Your task to perform on an android device: turn off improve location accuracy Image 0: 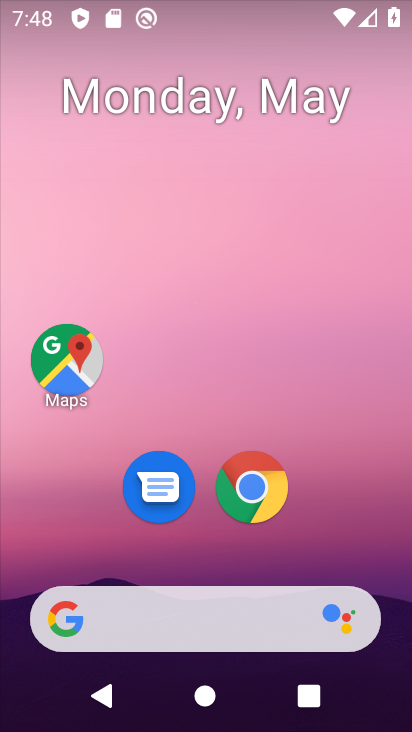
Step 0: drag from (296, 525) to (266, 256)
Your task to perform on an android device: turn off improve location accuracy Image 1: 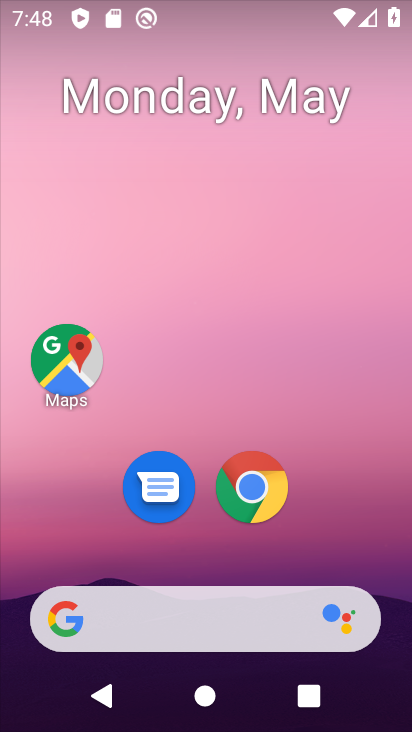
Step 1: drag from (338, 551) to (301, 90)
Your task to perform on an android device: turn off improve location accuracy Image 2: 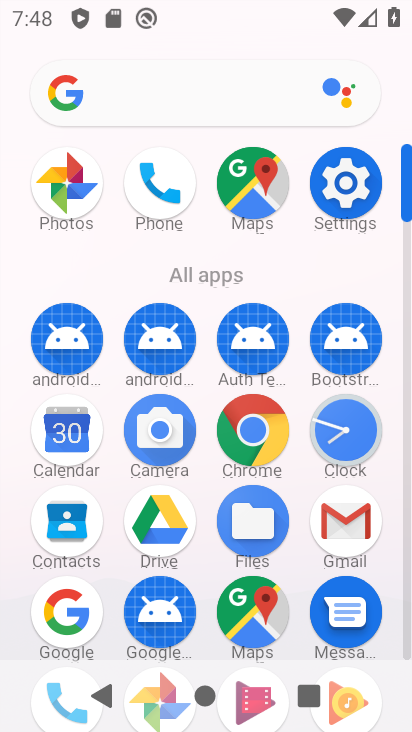
Step 2: click (345, 189)
Your task to perform on an android device: turn off improve location accuracy Image 3: 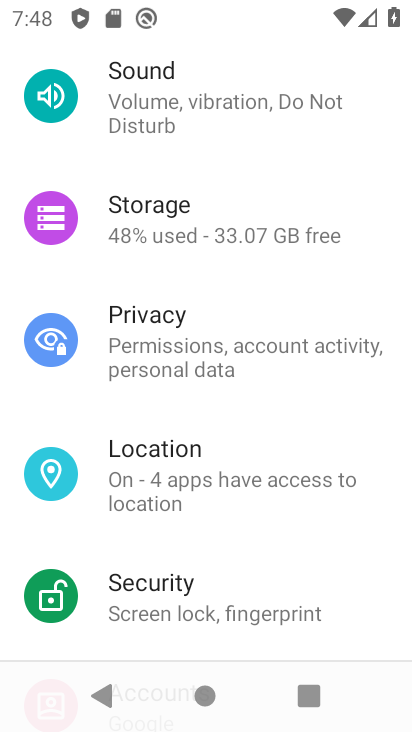
Step 3: click (178, 467)
Your task to perform on an android device: turn off improve location accuracy Image 4: 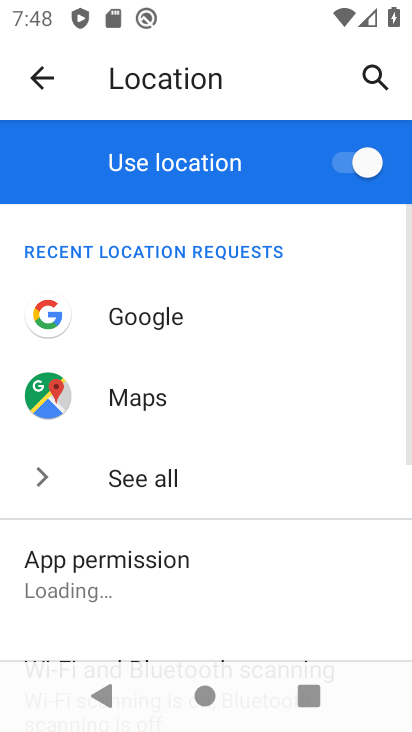
Step 4: drag from (245, 581) to (214, 142)
Your task to perform on an android device: turn off improve location accuracy Image 5: 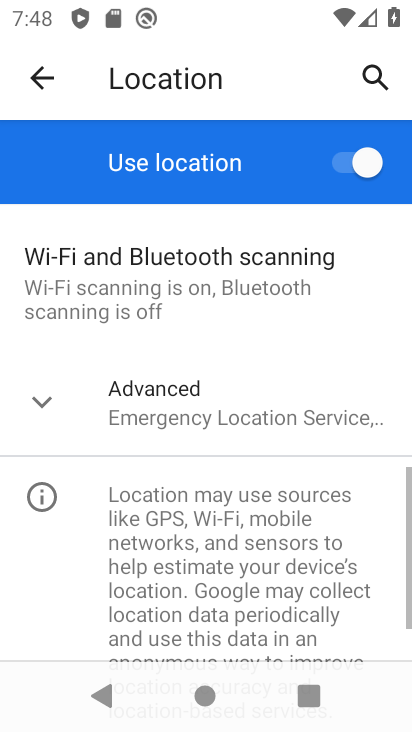
Step 5: click (44, 398)
Your task to perform on an android device: turn off improve location accuracy Image 6: 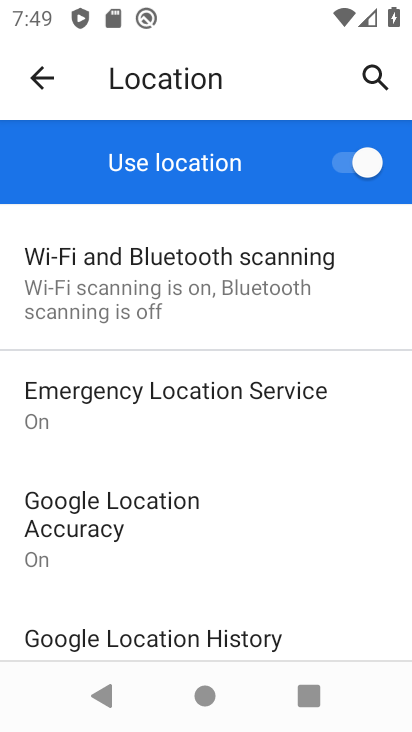
Step 6: click (109, 518)
Your task to perform on an android device: turn off improve location accuracy Image 7: 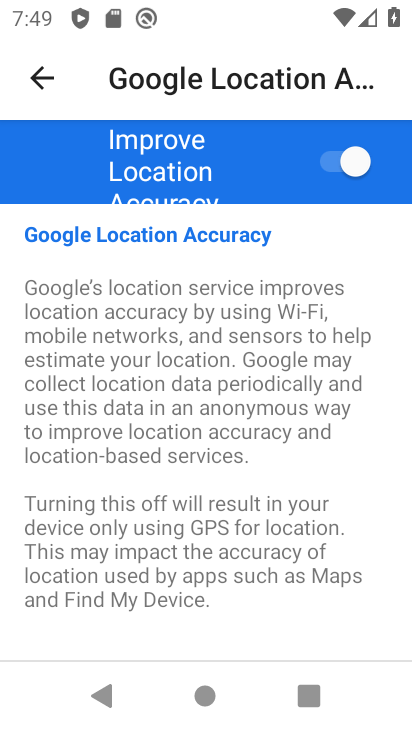
Step 7: click (351, 165)
Your task to perform on an android device: turn off improve location accuracy Image 8: 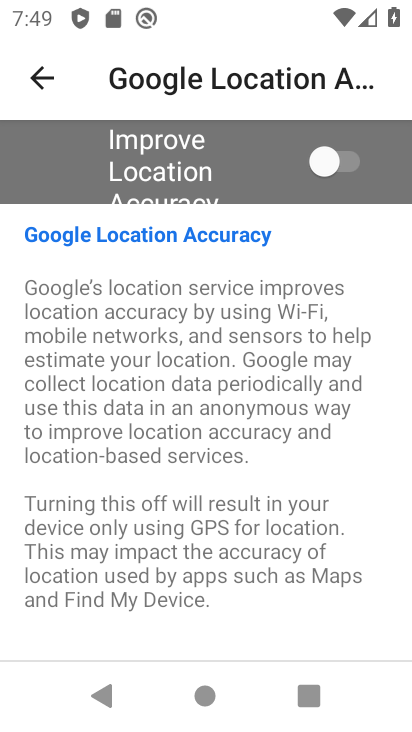
Step 8: task complete